Your task to perform on an android device: Open wifi settings Image 0: 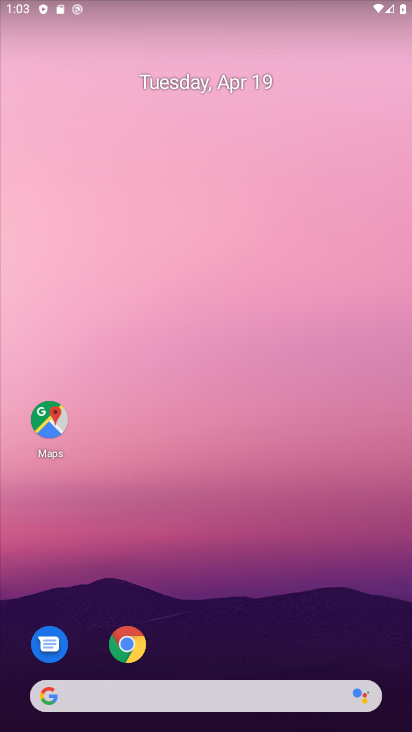
Step 0: drag from (218, 644) to (249, 31)
Your task to perform on an android device: Open wifi settings Image 1: 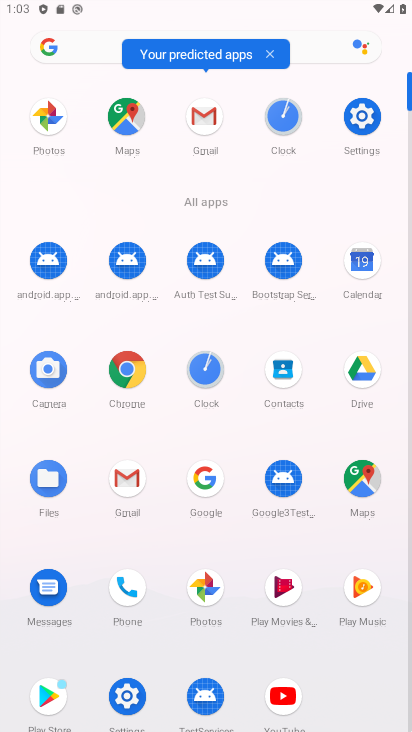
Step 1: click (361, 121)
Your task to perform on an android device: Open wifi settings Image 2: 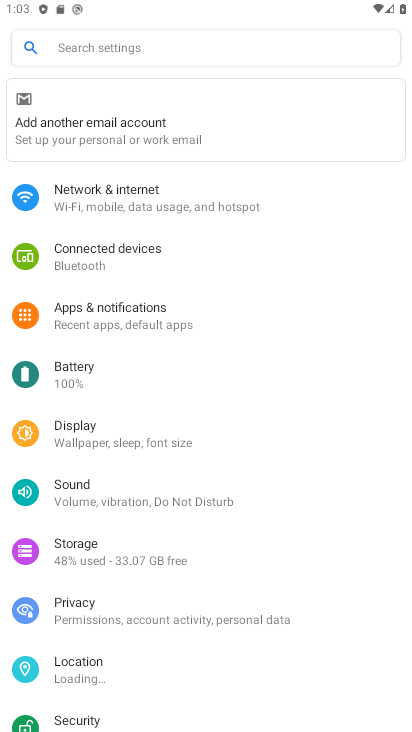
Step 2: click (162, 210)
Your task to perform on an android device: Open wifi settings Image 3: 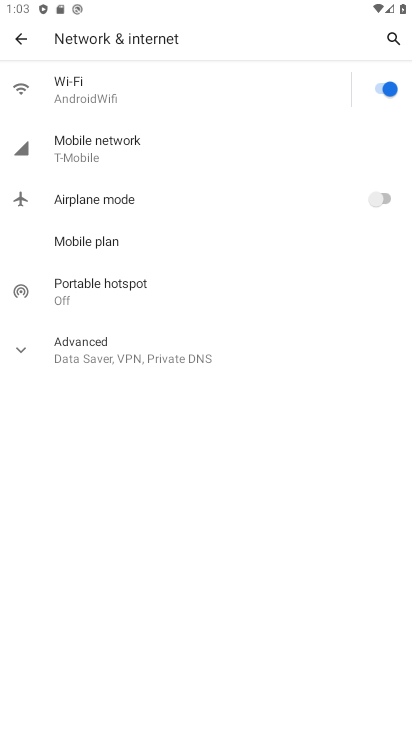
Step 3: click (127, 97)
Your task to perform on an android device: Open wifi settings Image 4: 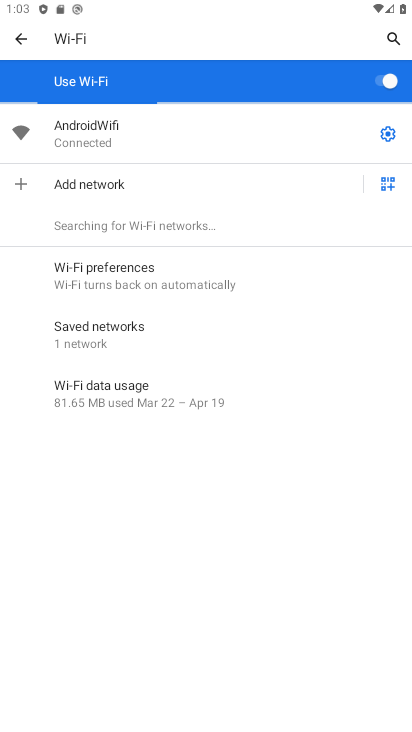
Step 4: task complete